Your task to perform on an android device: Open accessibility settings Image 0: 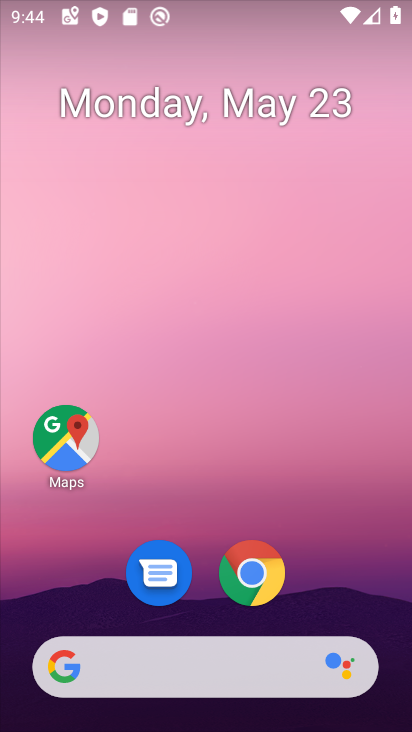
Step 0: drag from (395, 544) to (409, 168)
Your task to perform on an android device: Open accessibility settings Image 1: 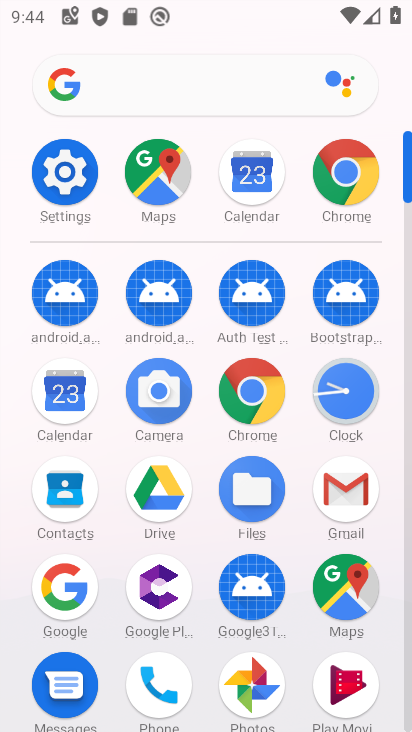
Step 1: click (66, 182)
Your task to perform on an android device: Open accessibility settings Image 2: 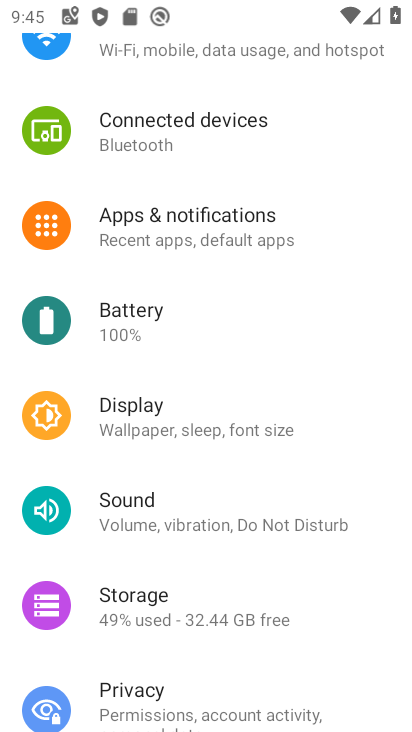
Step 2: drag from (332, 197) to (319, 325)
Your task to perform on an android device: Open accessibility settings Image 3: 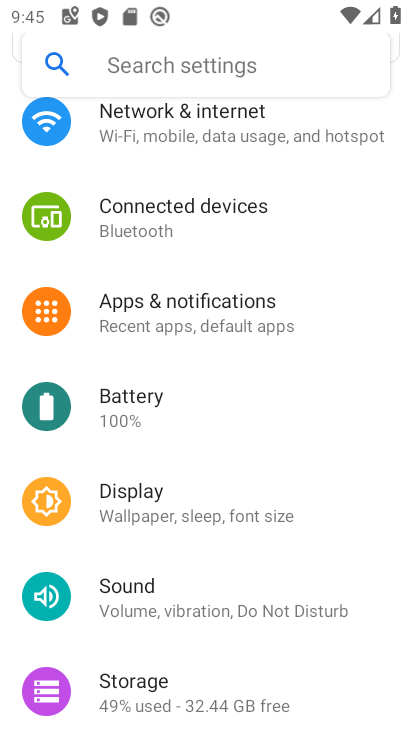
Step 3: drag from (321, 188) to (317, 324)
Your task to perform on an android device: Open accessibility settings Image 4: 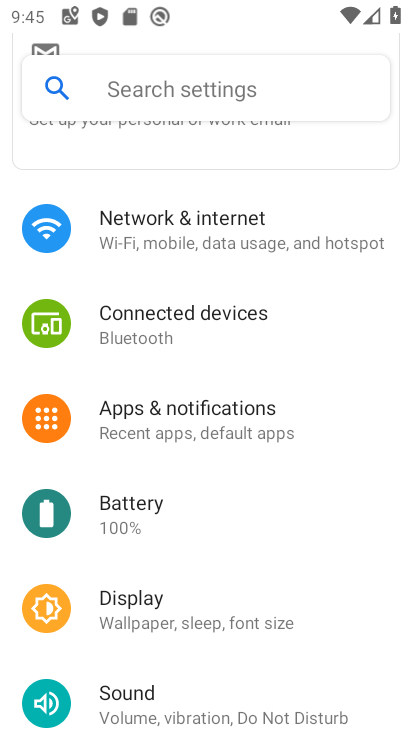
Step 4: drag from (320, 197) to (329, 341)
Your task to perform on an android device: Open accessibility settings Image 5: 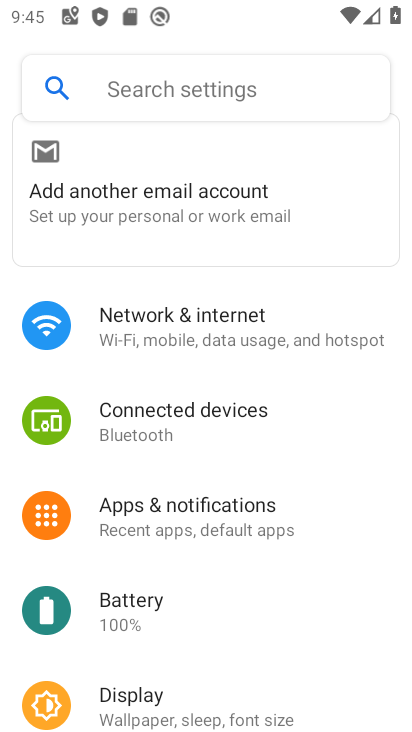
Step 5: drag from (333, 171) to (333, 304)
Your task to perform on an android device: Open accessibility settings Image 6: 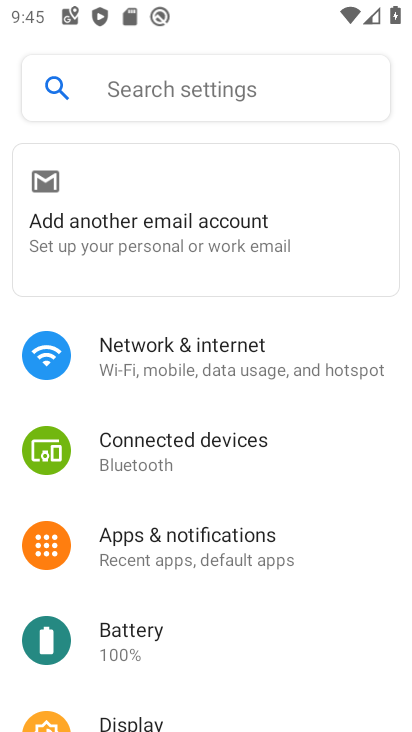
Step 6: drag from (332, 461) to (329, 298)
Your task to perform on an android device: Open accessibility settings Image 7: 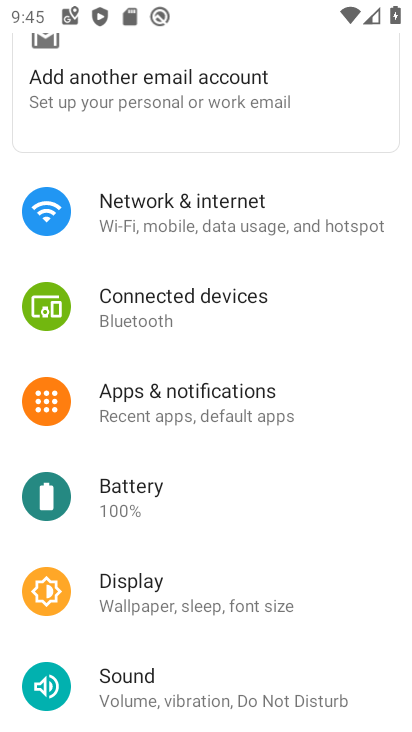
Step 7: drag from (329, 428) to (313, 281)
Your task to perform on an android device: Open accessibility settings Image 8: 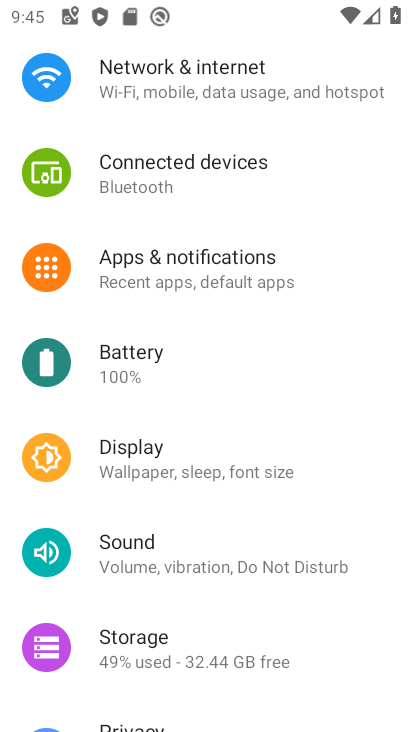
Step 8: drag from (330, 430) to (320, 303)
Your task to perform on an android device: Open accessibility settings Image 9: 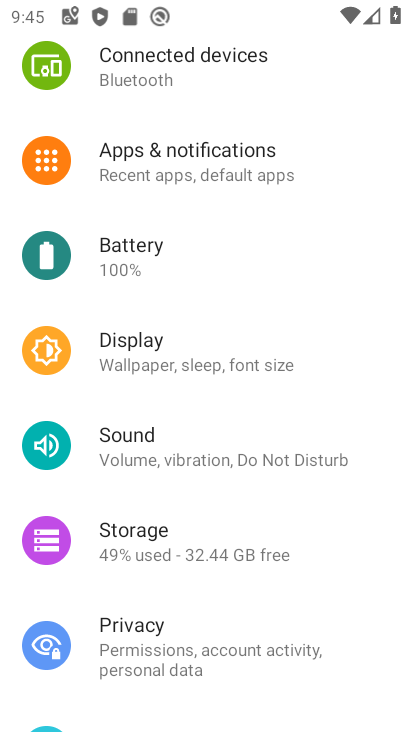
Step 9: drag from (336, 486) to (341, 338)
Your task to perform on an android device: Open accessibility settings Image 10: 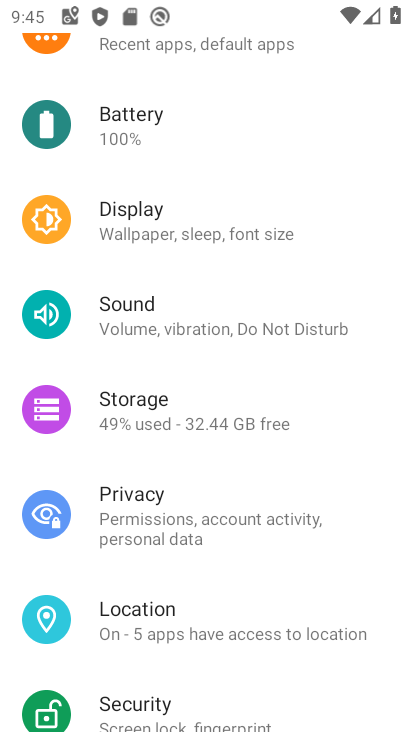
Step 10: drag from (347, 472) to (355, 345)
Your task to perform on an android device: Open accessibility settings Image 11: 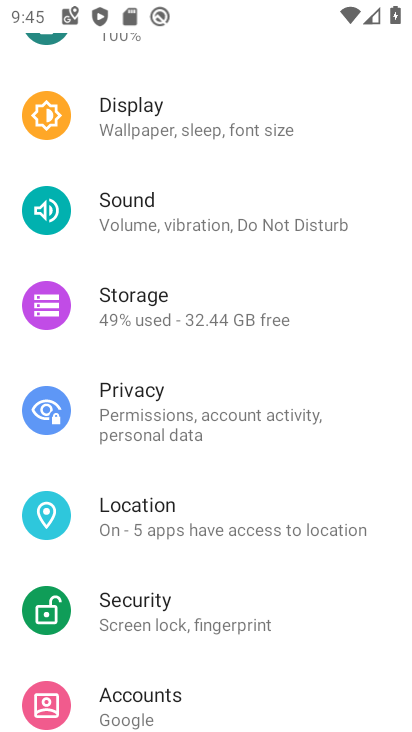
Step 11: drag from (359, 467) to (339, 345)
Your task to perform on an android device: Open accessibility settings Image 12: 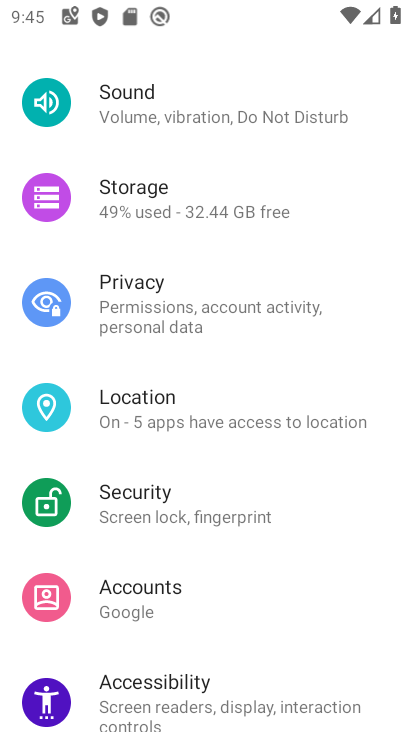
Step 12: drag from (338, 507) to (353, 420)
Your task to perform on an android device: Open accessibility settings Image 13: 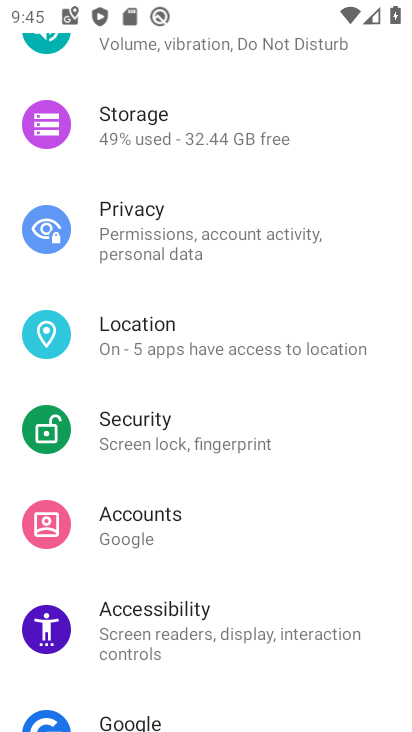
Step 13: drag from (351, 520) to (346, 414)
Your task to perform on an android device: Open accessibility settings Image 14: 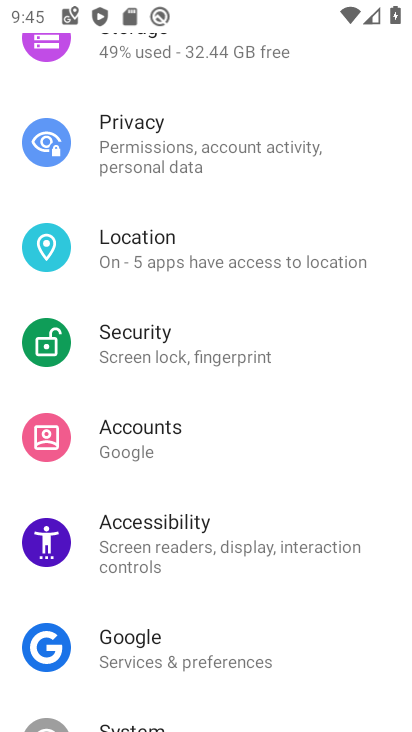
Step 14: drag from (332, 585) to (340, 490)
Your task to perform on an android device: Open accessibility settings Image 15: 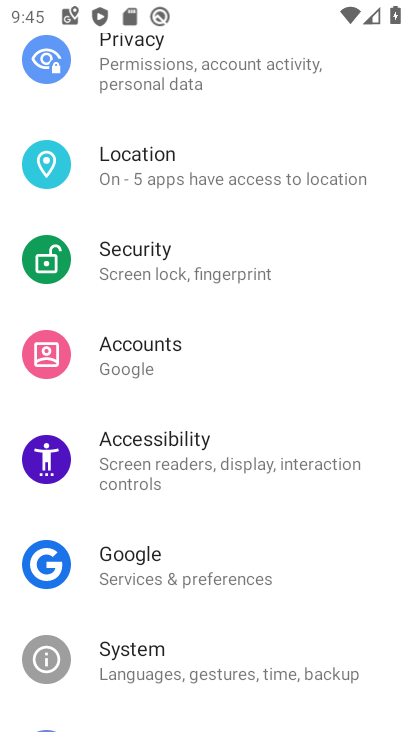
Step 15: click (288, 460)
Your task to perform on an android device: Open accessibility settings Image 16: 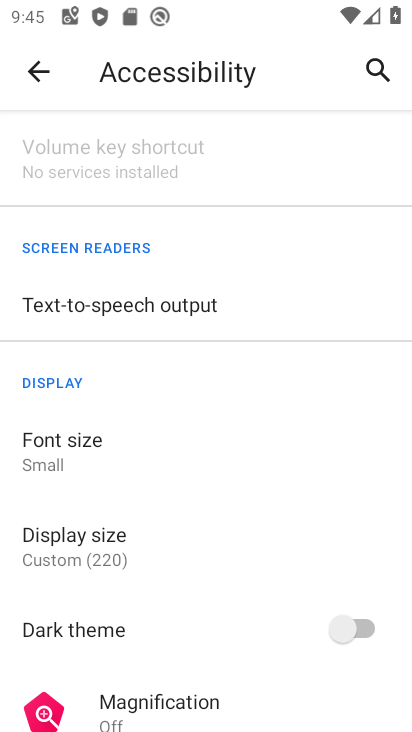
Step 16: task complete